Your task to perform on an android device: Check the news Image 0: 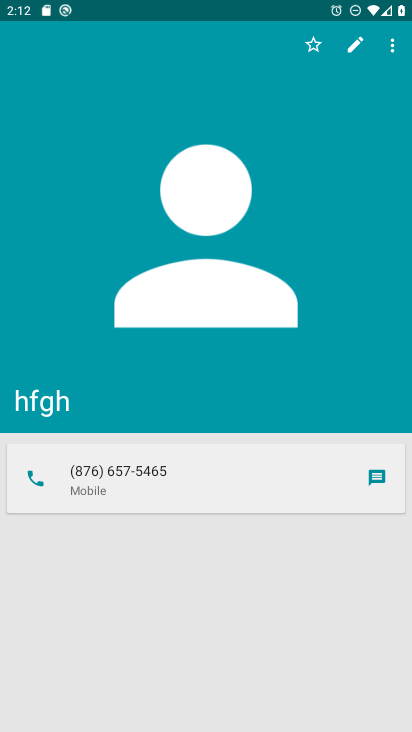
Step 0: press home button
Your task to perform on an android device: Check the news Image 1: 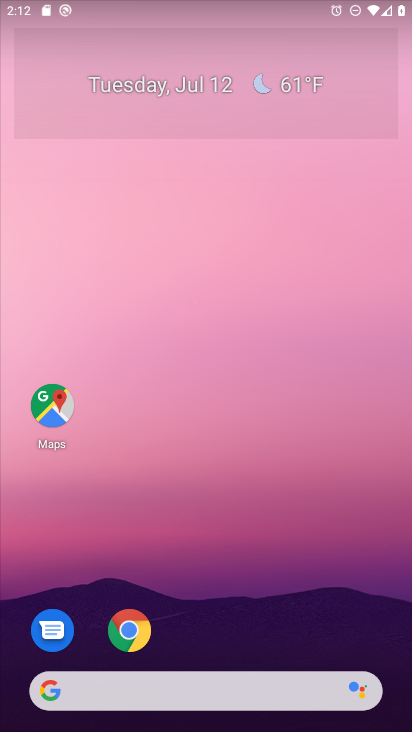
Step 1: drag from (212, 637) to (200, 227)
Your task to perform on an android device: Check the news Image 2: 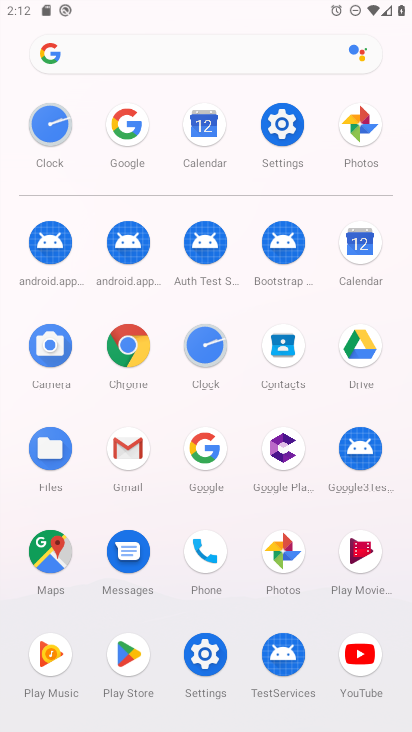
Step 2: click (128, 155)
Your task to perform on an android device: Check the news Image 3: 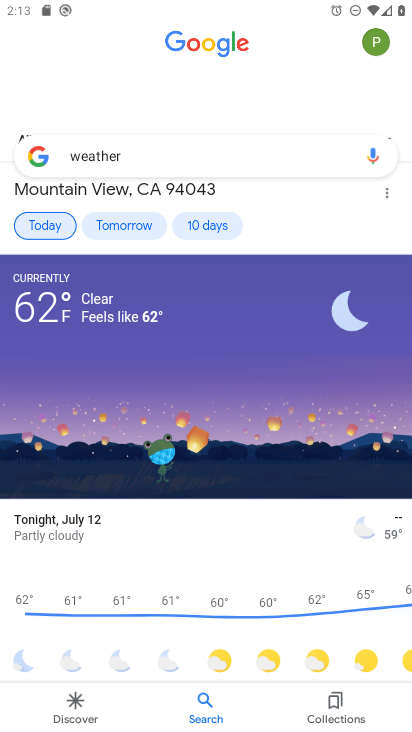
Step 3: click (146, 149)
Your task to perform on an android device: Check the news Image 4: 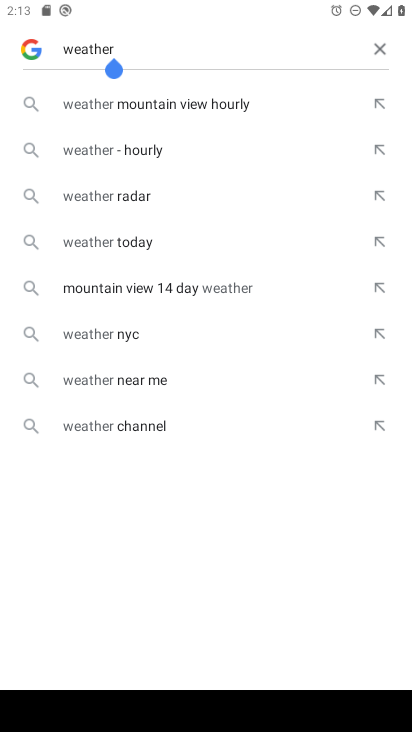
Step 4: click (376, 53)
Your task to perform on an android device: Check the news Image 5: 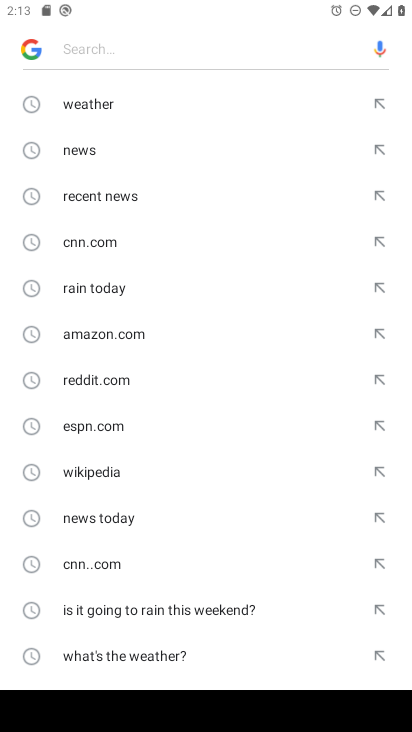
Step 5: click (92, 157)
Your task to perform on an android device: Check the news Image 6: 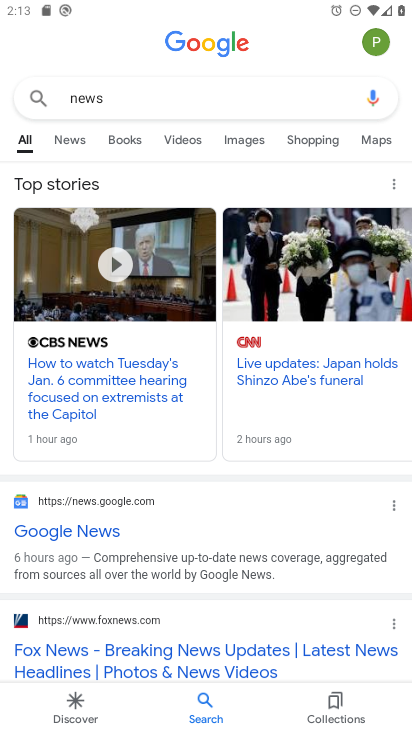
Step 6: click (77, 135)
Your task to perform on an android device: Check the news Image 7: 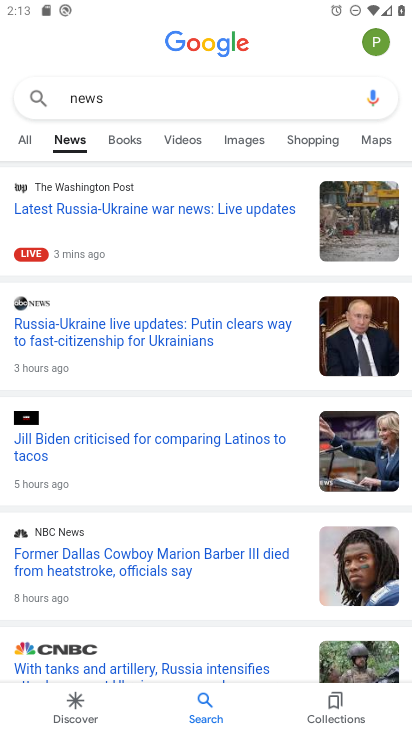
Step 7: task complete